Your task to perform on an android device: Is it going to rain tomorrow? Image 0: 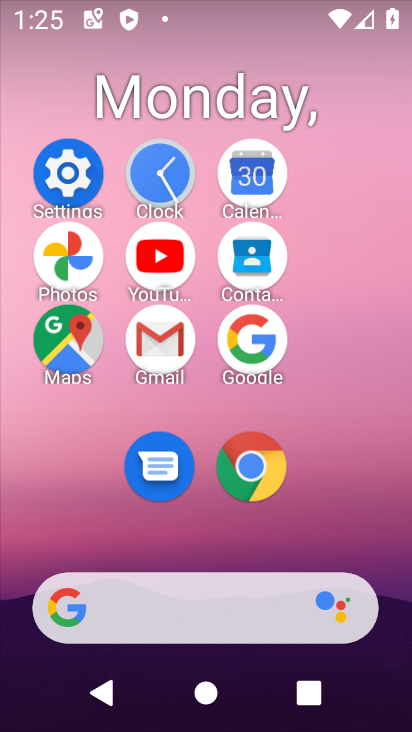
Step 0: click (249, 345)
Your task to perform on an android device: Is it going to rain tomorrow? Image 1: 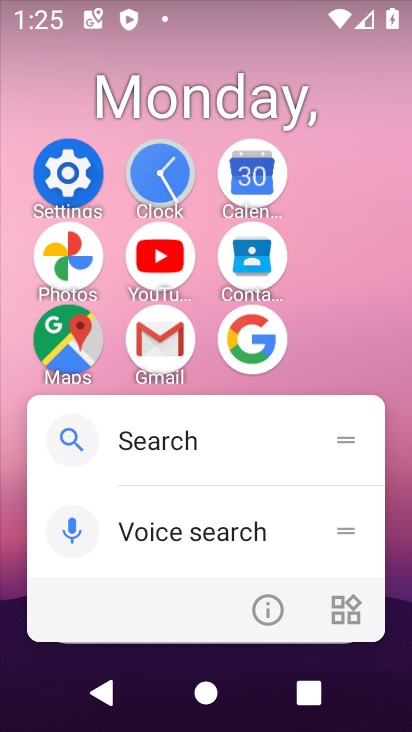
Step 1: click (251, 332)
Your task to perform on an android device: Is it going to rain tomorrow? Image 2: 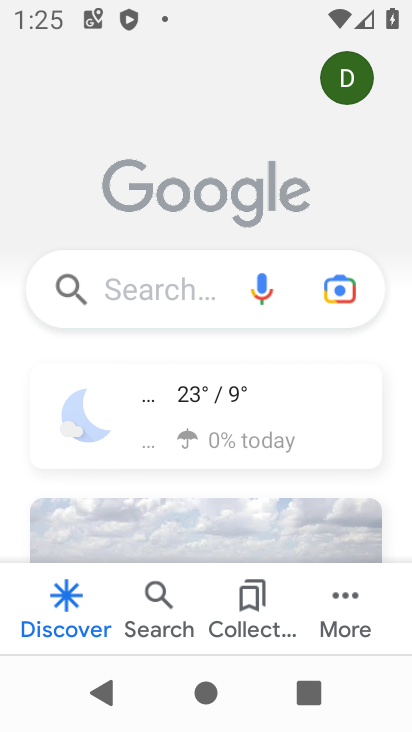
Step 2: click (269, 398)
Your task to perform on an android device: Is it going to rain tomorrow? Image 3: 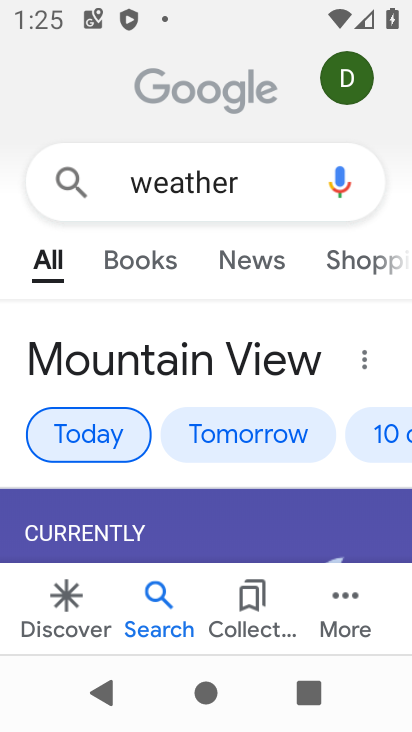
Step 3: click (248, 422)
Your task to perform on an android device: Is it going to rain tomorrow? Image 4: 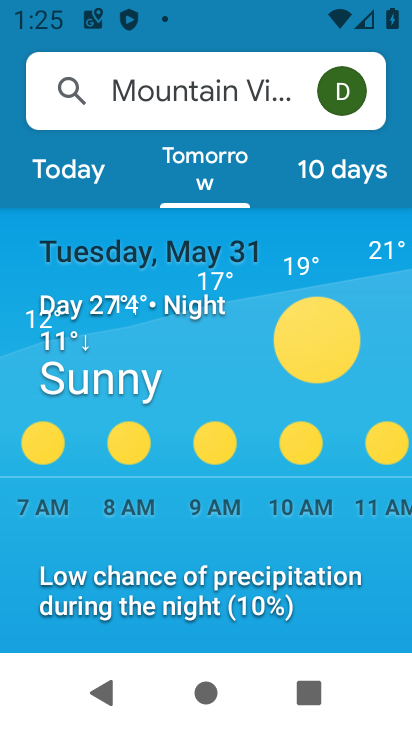
Step 4: task complete